Your task to perform on an android device: Is it going to rain tomorrow? Image 0: 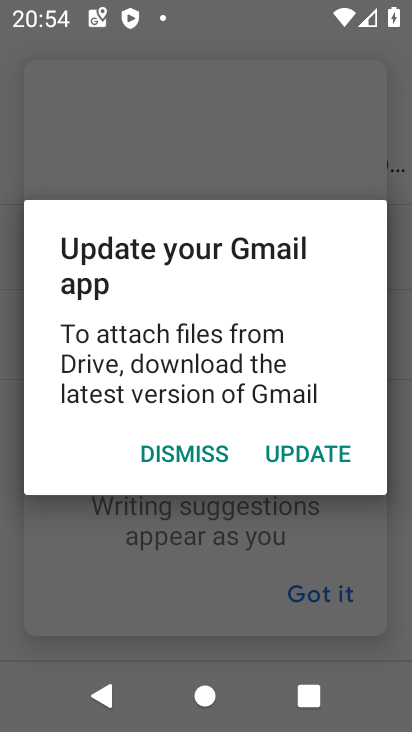
Step 0: press home button
Your task to perform on an android device: Is it going to rain tomorrow? Image 1: 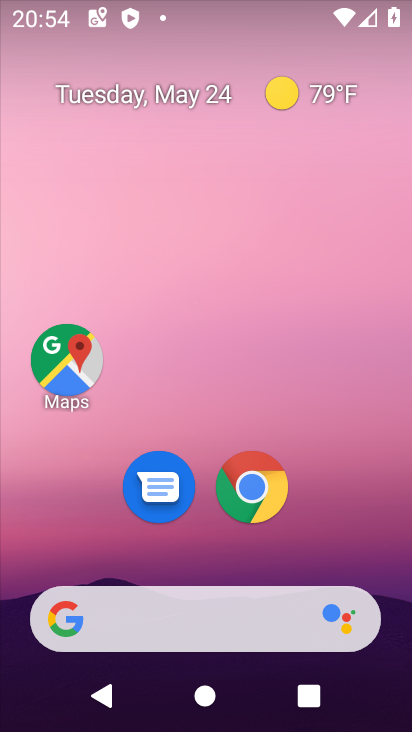
Step 1: click (262, 503)
Your task to perform on an android device: Is it going to rain tomorrow? Image 2: 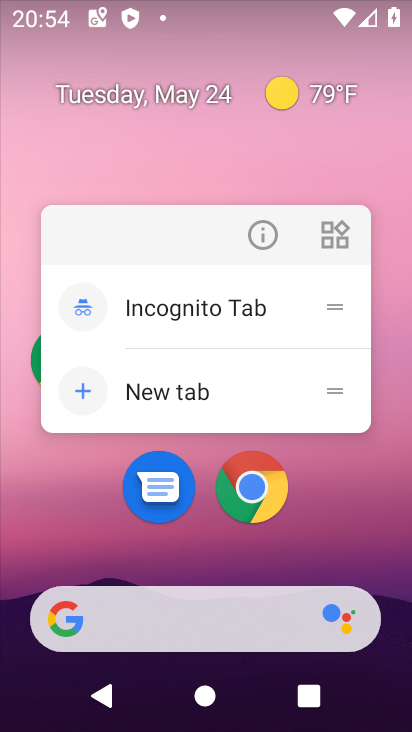
Step 2: click (251, 523)
Your task to perform on an android device: Is it going to rain tomorrow? Image 3: 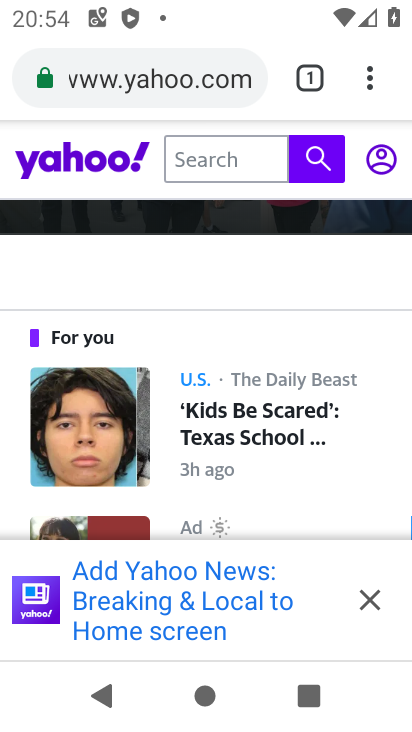
Step 3: click (210, 76)
Your task to perform on an android device: Is it going to rain tomorrow? Image 4: 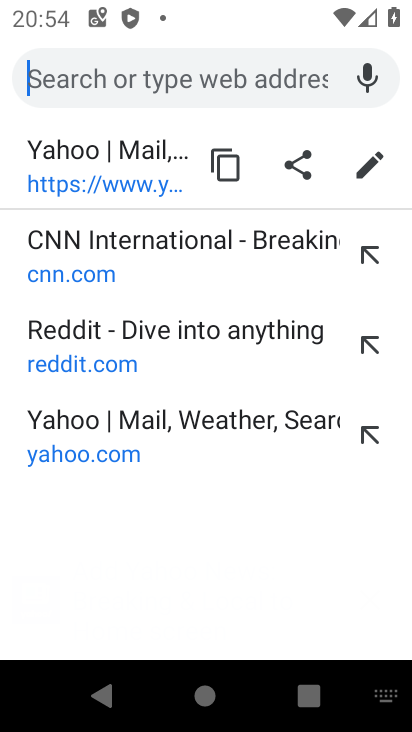
Step 4: type "Is it going to rain tomorrow?"
Your task to perform on an android device: Is it going to rain tomorrow? Image 5: 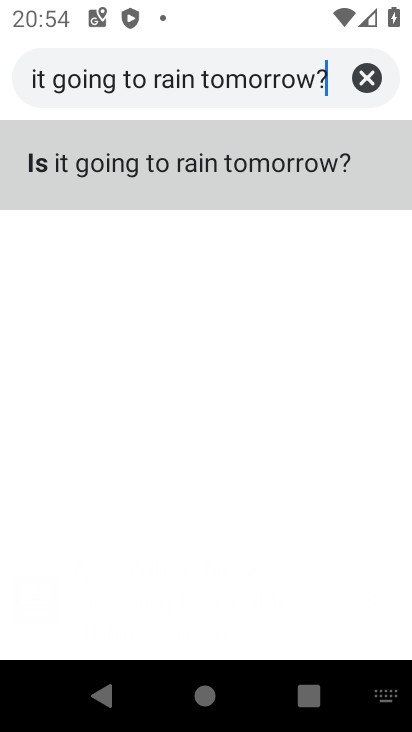
Step 5: type ""
Your task to perform on an android device: Is it going to rain tomorrow? Image 6: 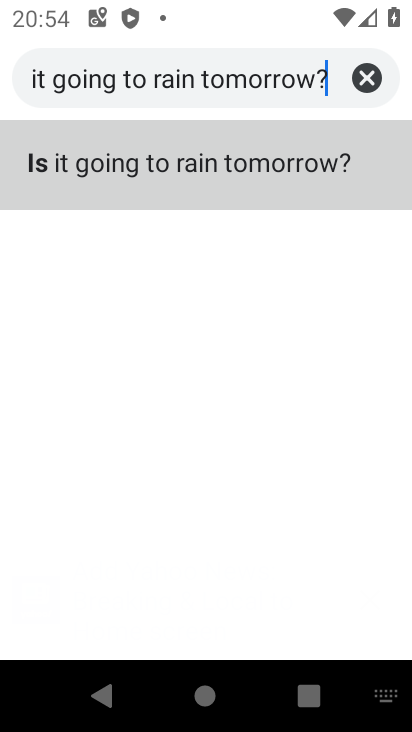
Step 6: click (133, 157)
Your task to perform on an android device: Is it going to rain tomorrow? Image 7: 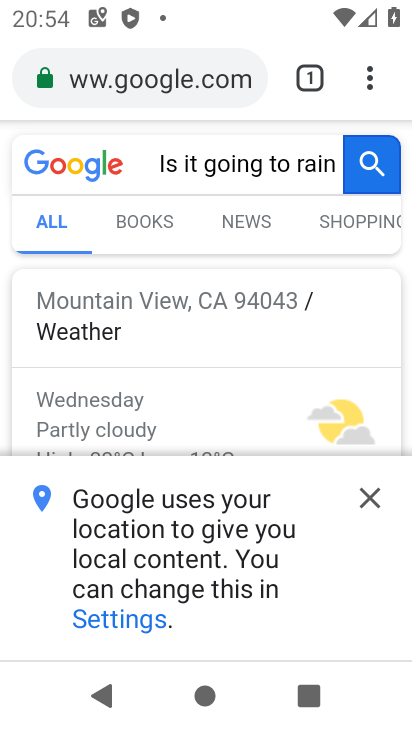
Step 7: task complete